Your task to perform on an android device: Empty the shopping cart on amazon.com. Search for razer blade on amazon.com, select the first entry, and add it to the cart. Image 0: 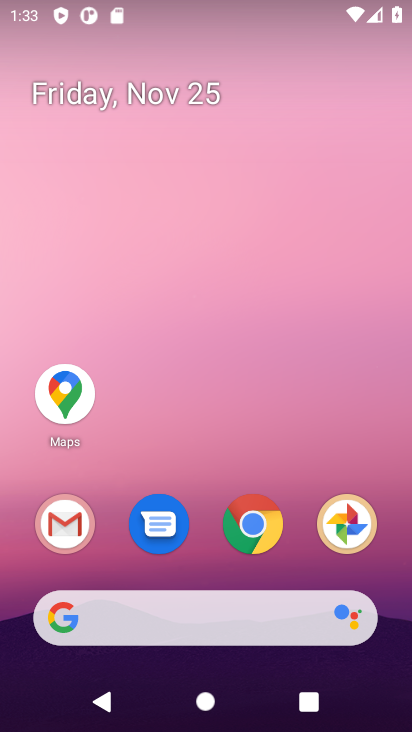
Step 0: click (260, 524)
Your task to perform on an android device: Empty the shopping cart on amazon.com. Search for razer blade on amazon.com, select the first entry, and add it to the cart. Image 1: 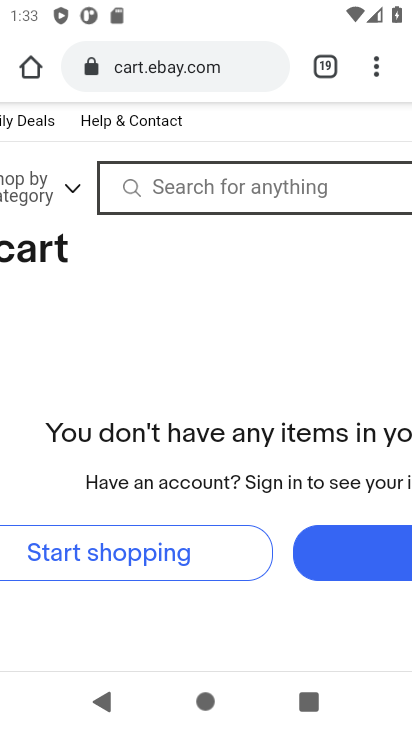
Step 1: click (158, 70)
Your task to perform on an android device: Empty the shopping cart on amazon.com. Search for razer blade on amazon.com, select the first entry, and add it to the cart. Image 2: 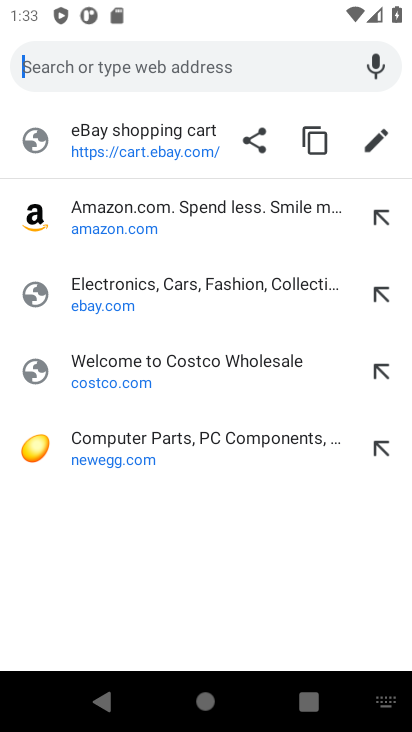
Step 2: click (101, 229)
Your task to perform on an android device: Empty the shopping cart on amazon.com. Search for razer blade on amazon.com, select the first entry, and add it to the cart. Image 3: 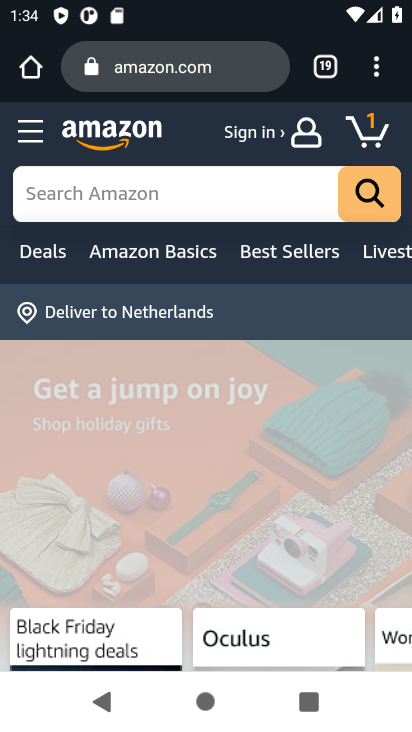
Step 3: click (366, 122)
Your task to perform on an android device: Empty the shopping cart on amazon.com. Search for razer blade on amazon.com, select the first entry, and add it to the cart. Image 4: 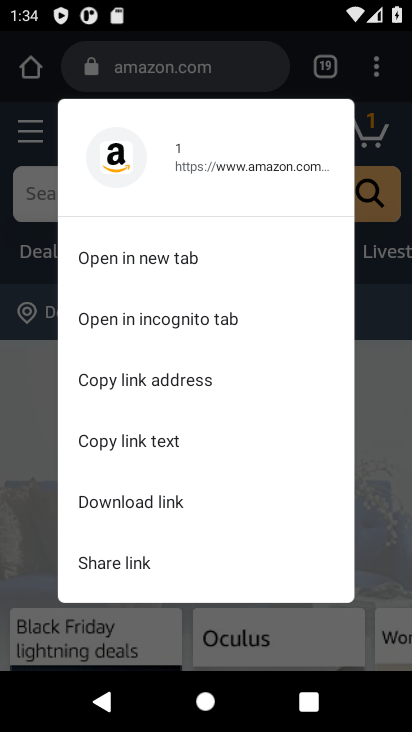
Step 4: click (381, 136)
Your task to perform on an android device: Empty the shopping cart on amazon.com. Search for razer blade on amazon.com, select the first entry, and add it to the cart. Image 5: 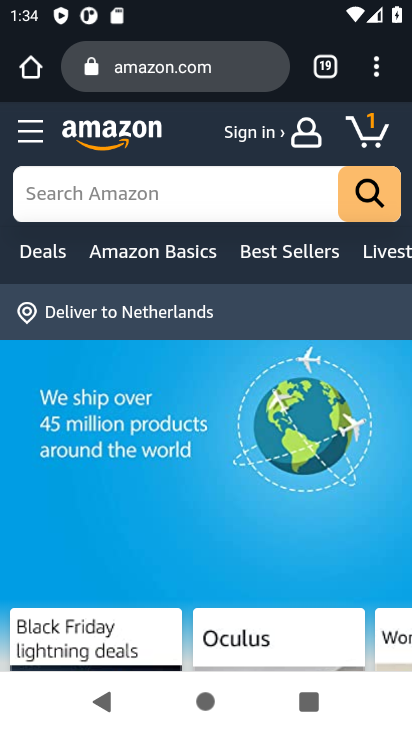
Step 5: click (369, 131)
Your task to perform on an android device: Empty the shopping cart on amazon.com. Search for razer blade on amazon.com, select the first entry, and add it to the cart. Image 6: 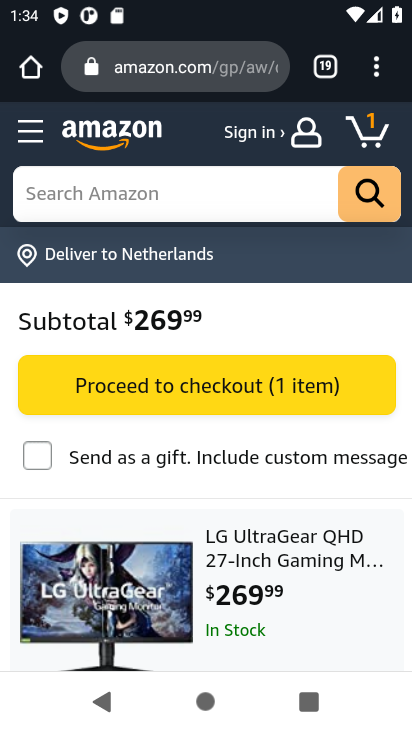
Step 6: drag from (204, 451) to (230, 293)
Your task to perform on an android device: Empty the shopping cart on amazon.com. Search for razer blade on amazon.com, select the first entry, and add it to the cart. Image 7: 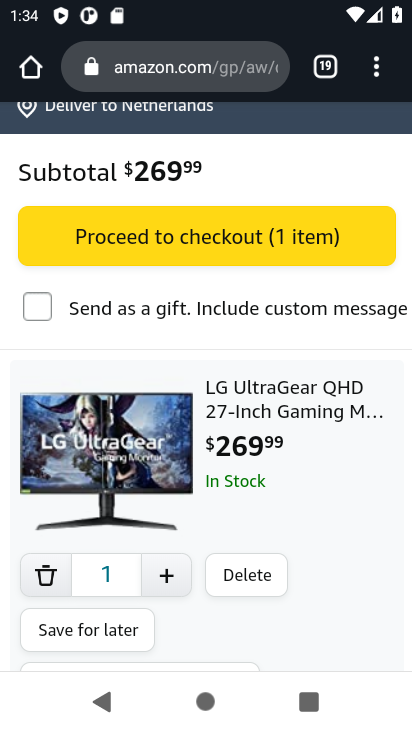
Step 7: click (242, 577)
Your task to perform on an android device: Empty the shopping cart on amazon.com. Search for razer blade on amazon.com, select the first entry, and add it to the cart. Image 8: 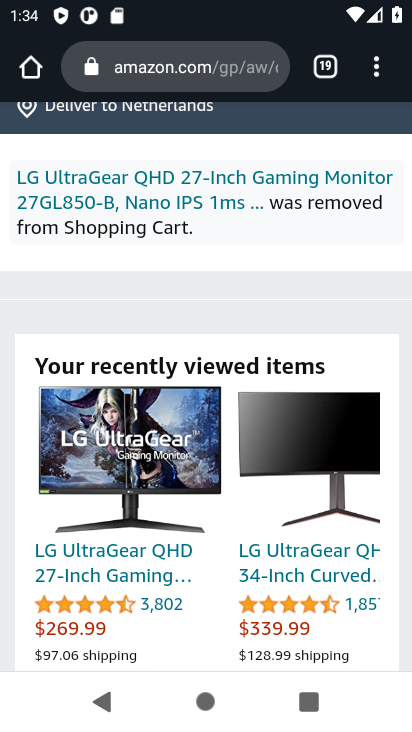
Step 8: drag from (144, 364) to (130, 501)
Your task to perform on an android device: Empty the shopping cart on amazon.com. Search for razer blade on amazon.com, select the first entry, and add it to the cart. Image 9: 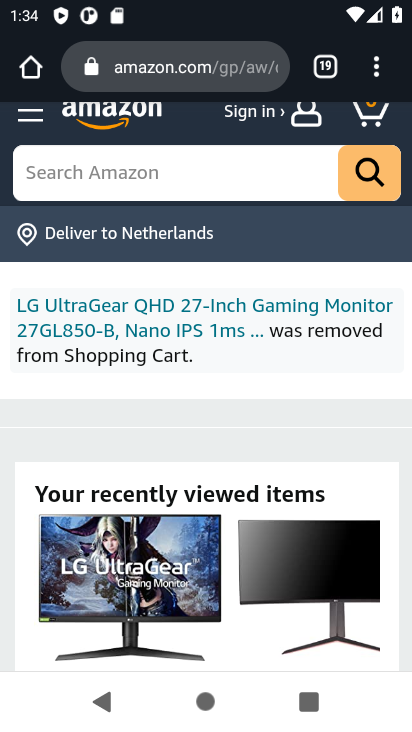
Step 9: click (107, 174)
Your task to perform on an android device: Empty the shopping cart on amazon.com. Search for razer blade on amazon.com, select the first entry, and add it to the cart. Image 10: 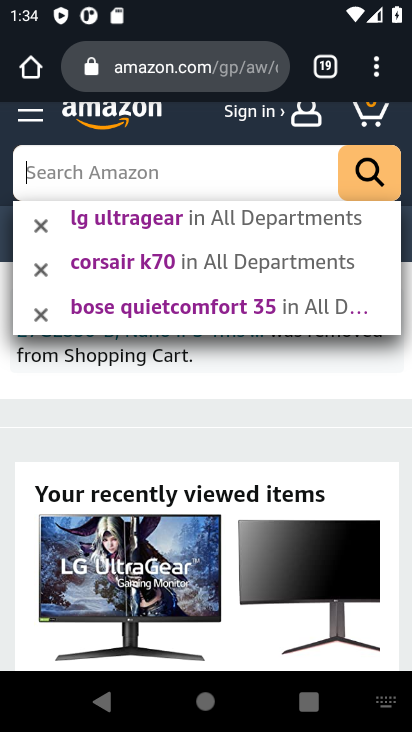
Step 10: type " razer blade"
Your task to perform on an android device: Empty the shopping cart on amazon.com. Search for razer blade on amazon.com, select the first entry, and add it to the cart. Image 11: 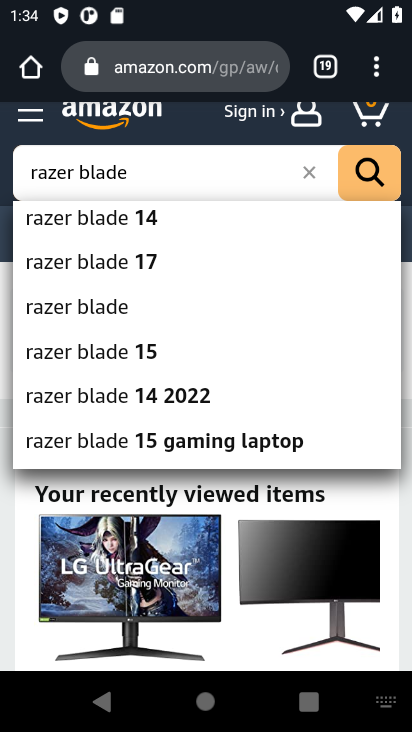
Step 11: click (67, 305)
Your task to perform on an android device: Empty the shopping cart on amazon.com. Search for razer blade on amazon.com, select the first entry, and add it to the cart. Image 12: 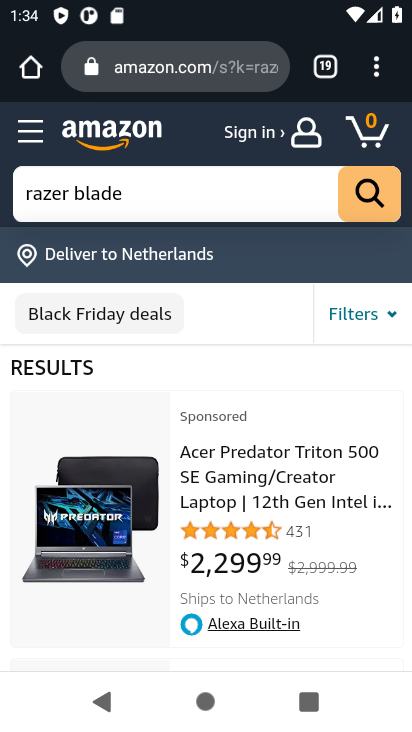
Step 12: task complete